Your task to perform on an android device: install app "The Home Depot" Image 0: 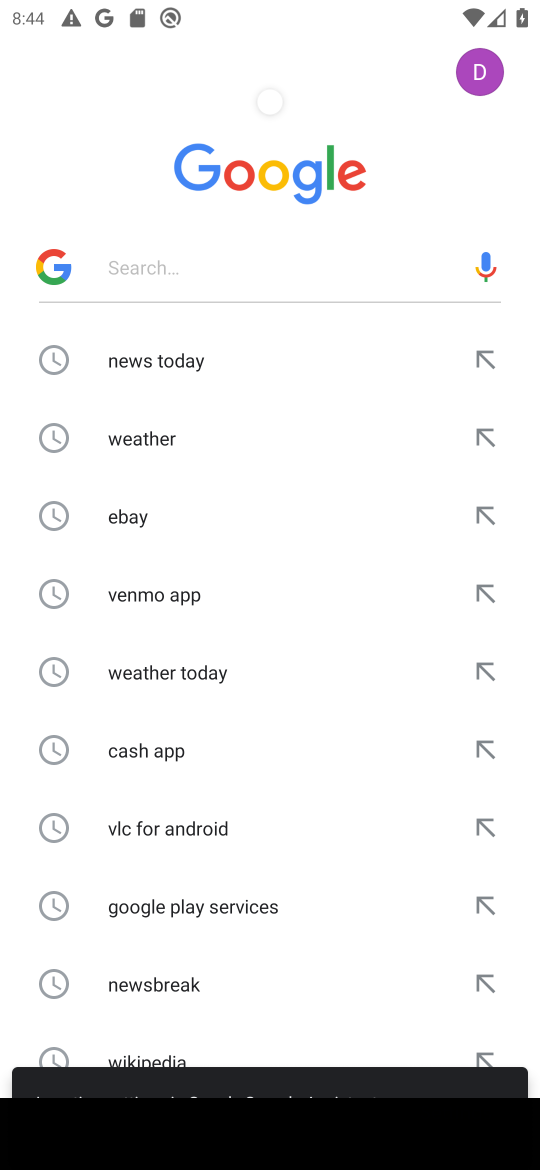
Step 0: press home button
Your task to perform on an android device: install app "The Home Depot" Image 1: 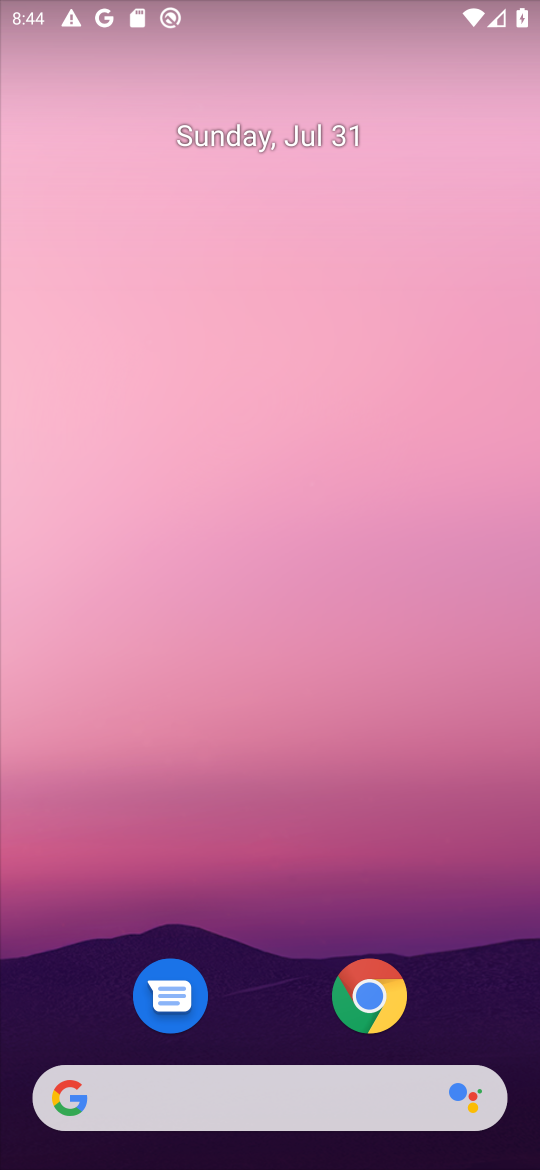
Step 1: drag from (448, 984) to (449, 94)
Your task to perform on an android device: install app "The Home Depot" Image 2: 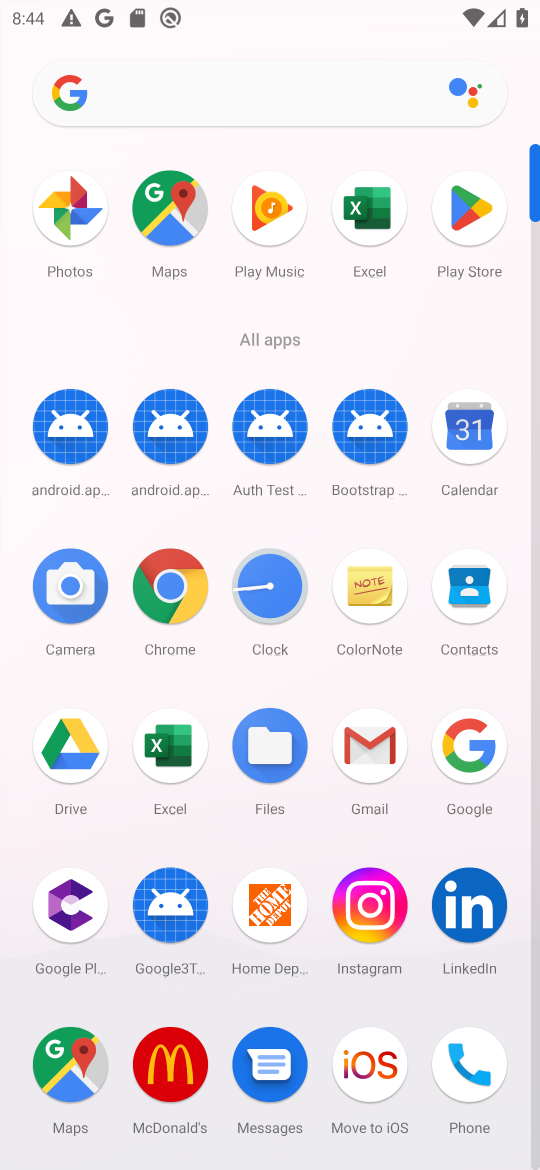
Step 2: click (474, 203)
Your task to perform on an android device: install app "The Home Depot" Image 3: 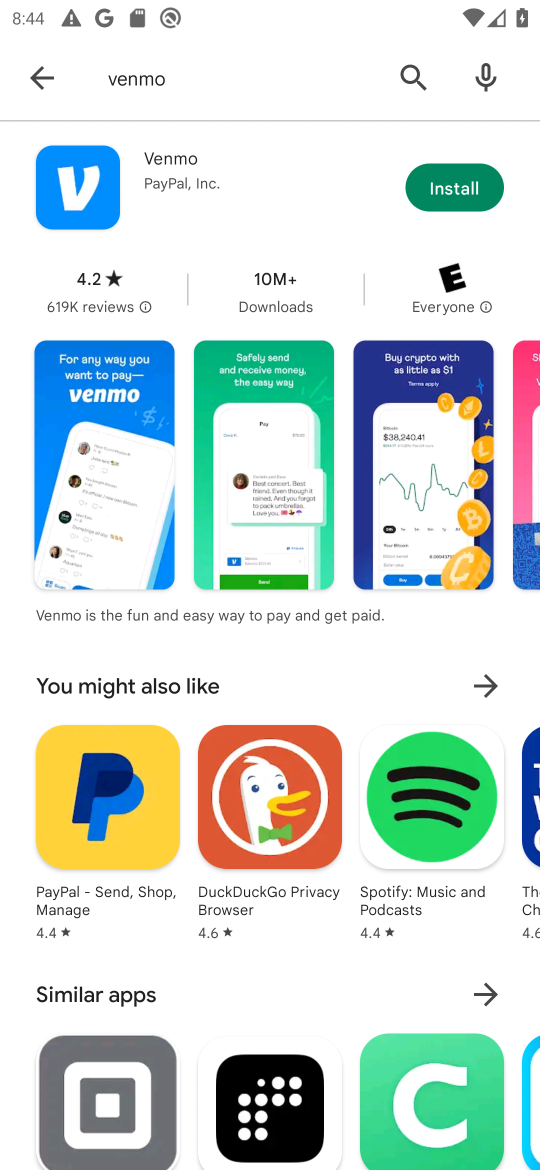
Step 3: click (398, 67)
Your task to perform on an android device: install app "The Home Depot" Image 4: 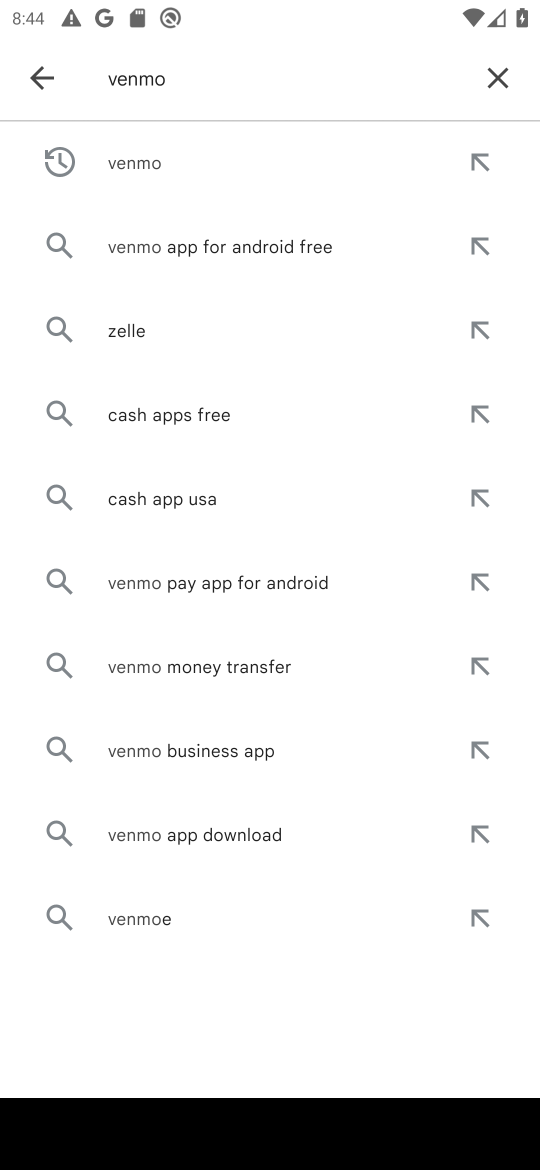
Step 4: click (500, 82)
Your task to perform on an android device: install app "The Home Depot" Image 5: 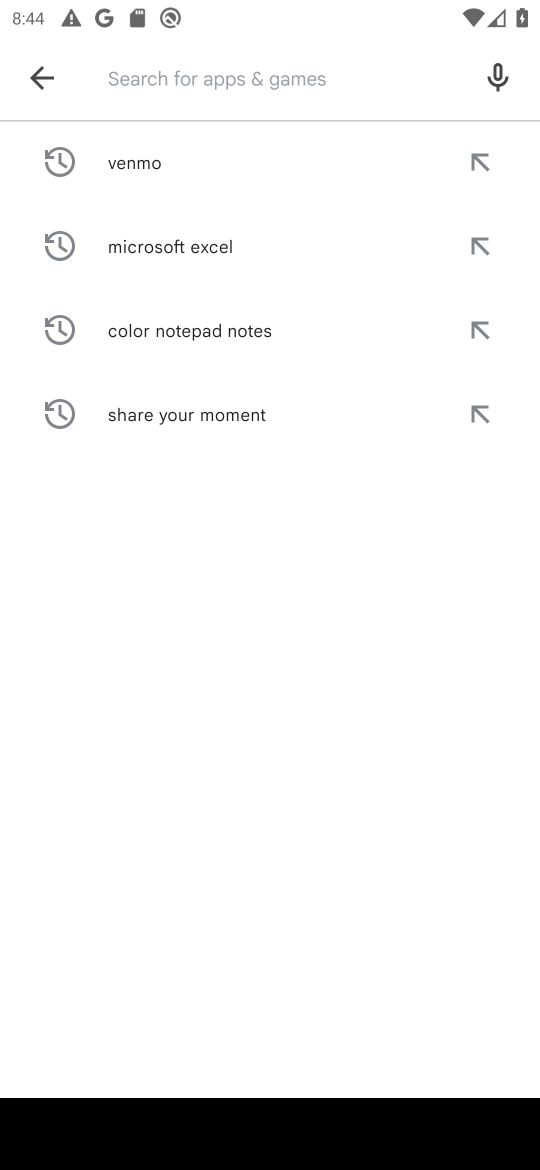
Step 5: type "the home depot"
Your task to perform on an android device: install app "The Home Depot" Image 6: 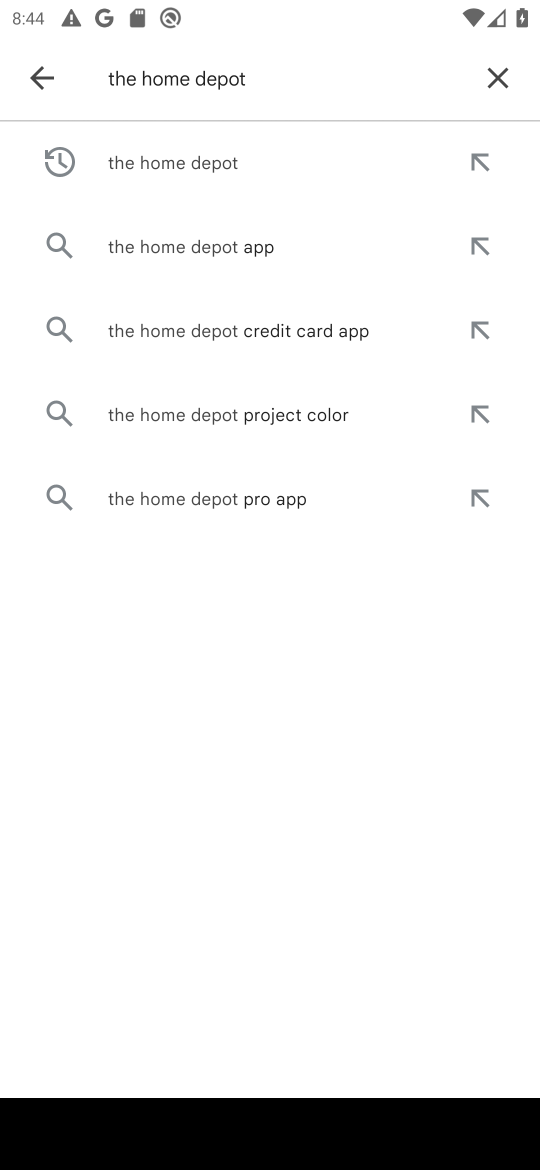
Step 6: click (222, 162)
Your task to perform on an android device: install app "The Home Depot" Image 7: 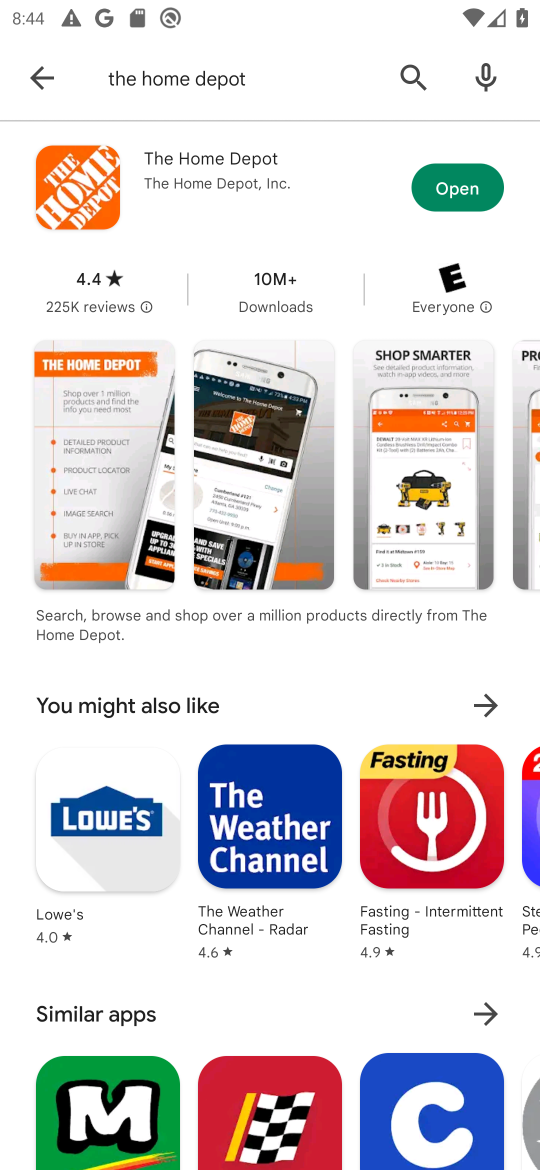
Step 7: task complete